Your task to perform on an android device: Open the stopwatch Image 0: 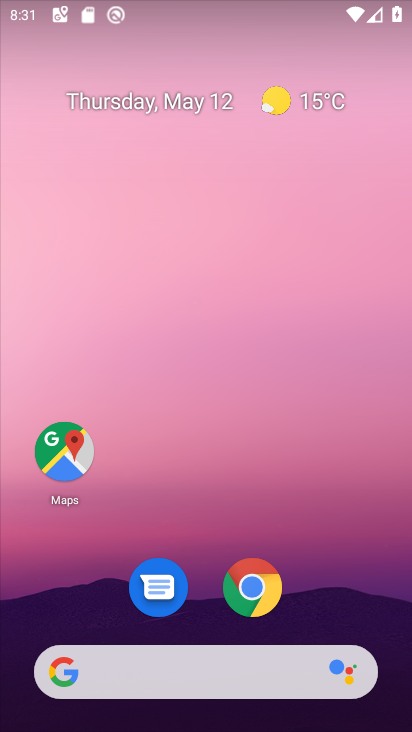
Step 0: drag from (386, 647) to (290, 30)
Your task to perform on an android device: Open the stopwatch Image 1: 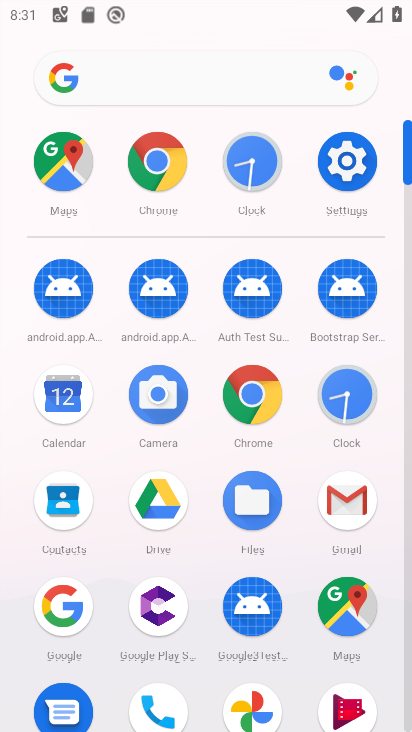
Step 1: click (353, 401)
Your task to perform on an android device: Open the stopwatch Image 2: 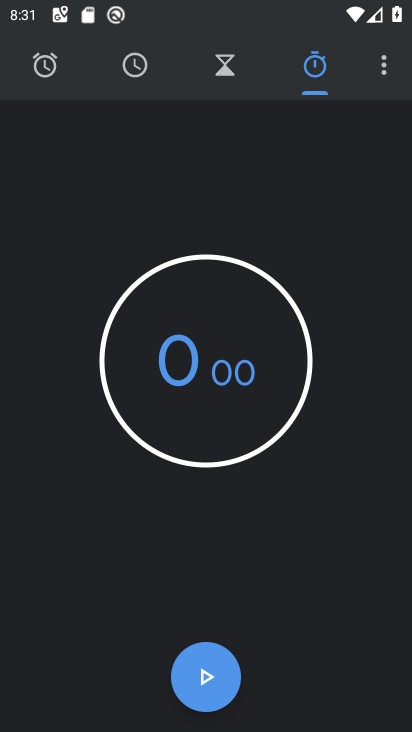
Step 2: task complete